Your task to perform on an android device: Check the news Image 0: 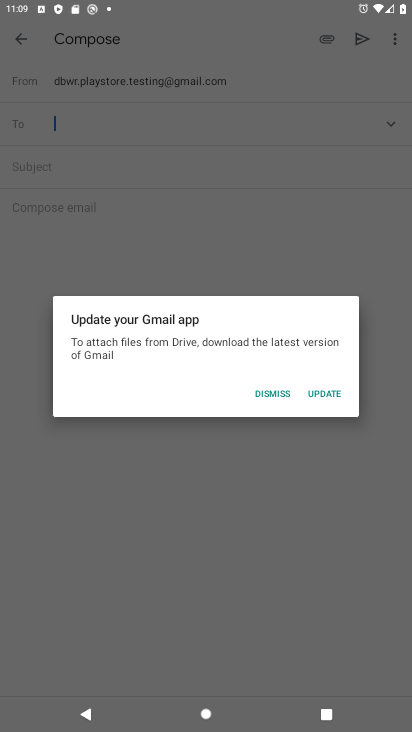
Step 0: press home button
Your task to perform on an android device: Check the news Image 1: 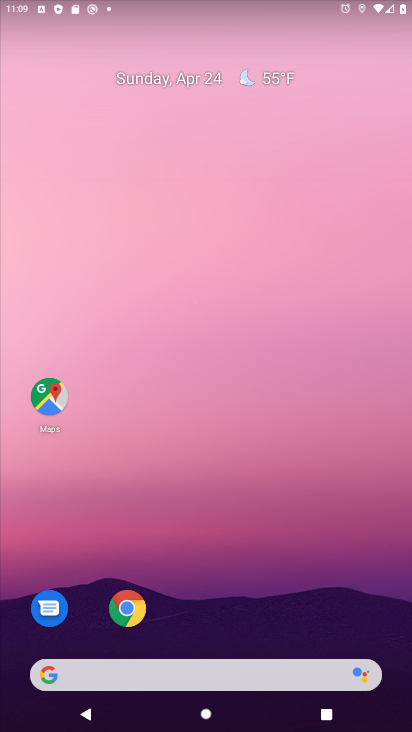
Step 1: task complete